Your task to perform on an android device: Check the news Image 0: 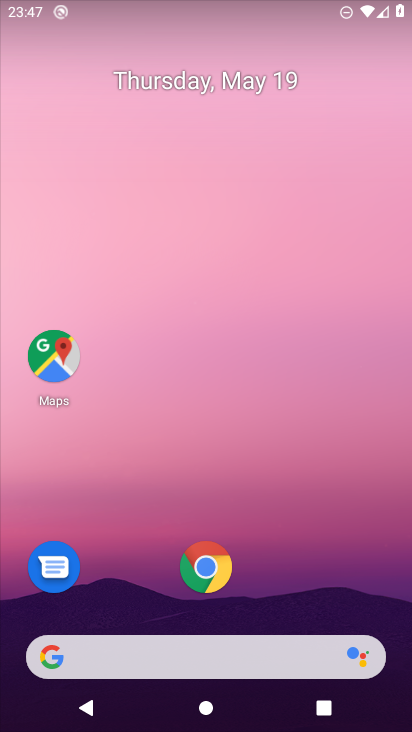
Step 0: press home button
Your task to perform on an android device: Check the news Image 1: 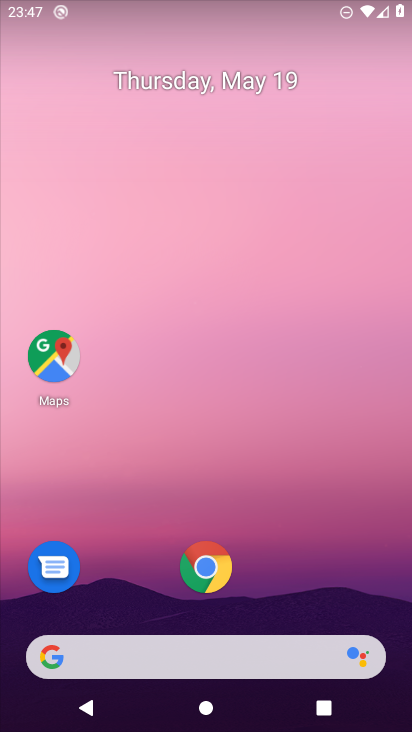
Step 1: task complete